Your task to perform on an android device: Clear all items from cart on amazon.com. Add razer thresher to the cart on amazon.com, then select checkout. Image 0: 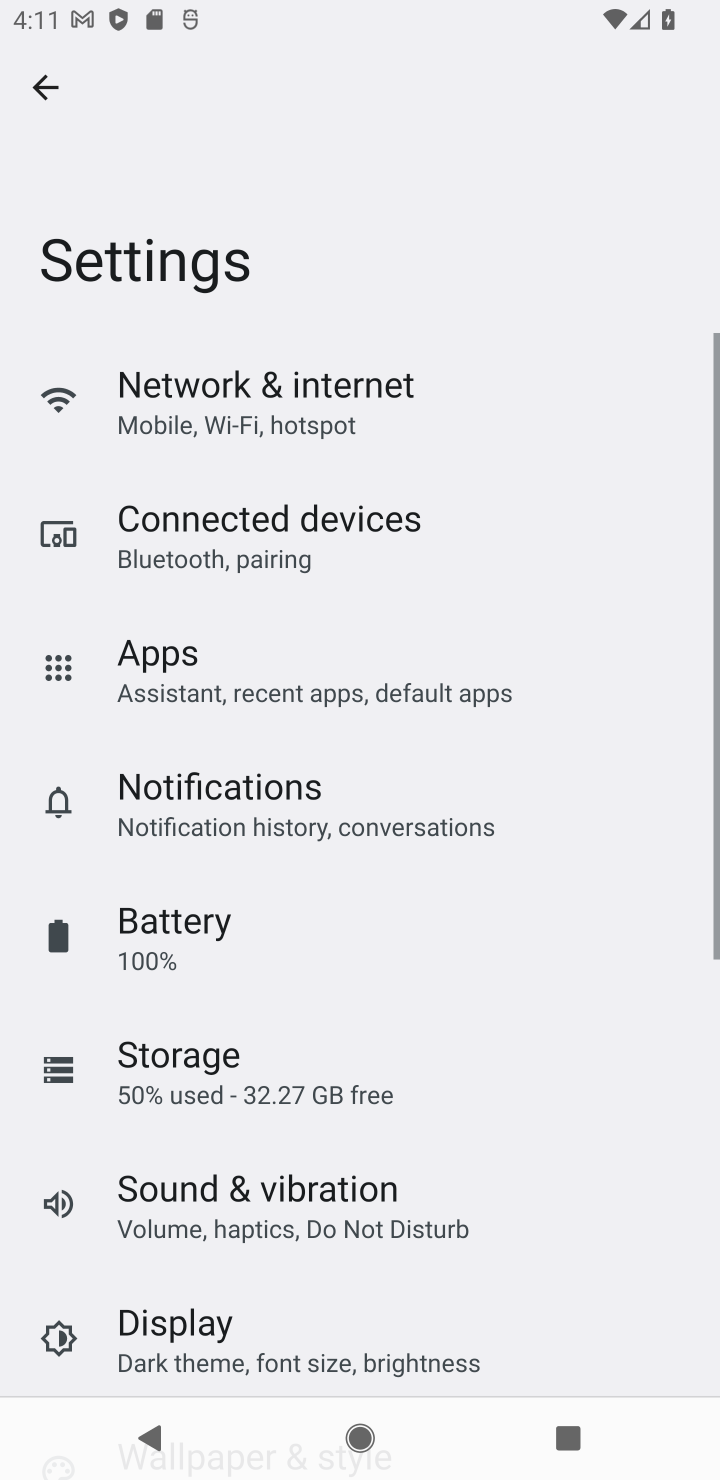
Step 0: press home button
Your task to perform on an android device: Clear all items from cart on amazon.com. Add razer thresher to the cart on amazon.com, then select checkout. Image 1: 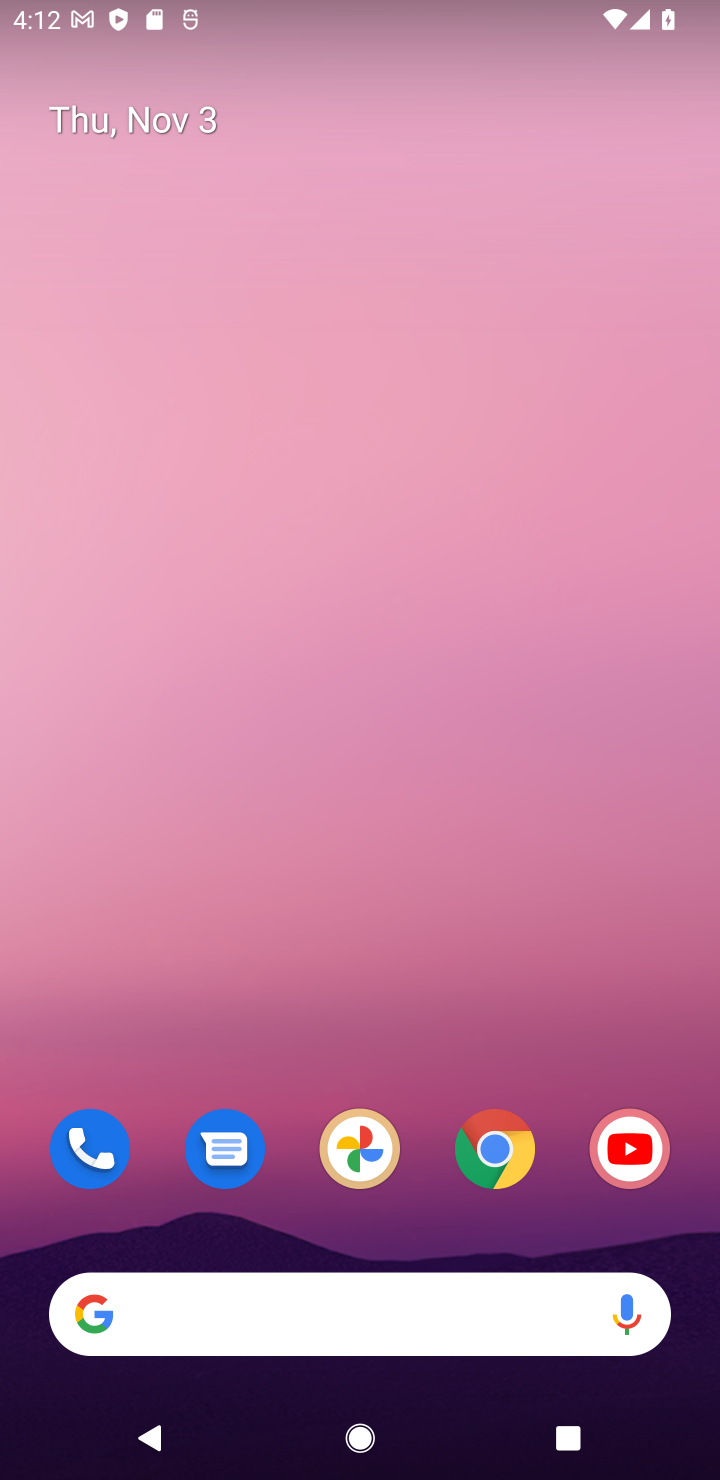
Step 1: drag from (428, 1107) to (197, 41)
Your task to perform on an android device: Clear all items from cart on amazon.com. Add razer thresher to the cart on amazon.com, then select checkout. Image 2: 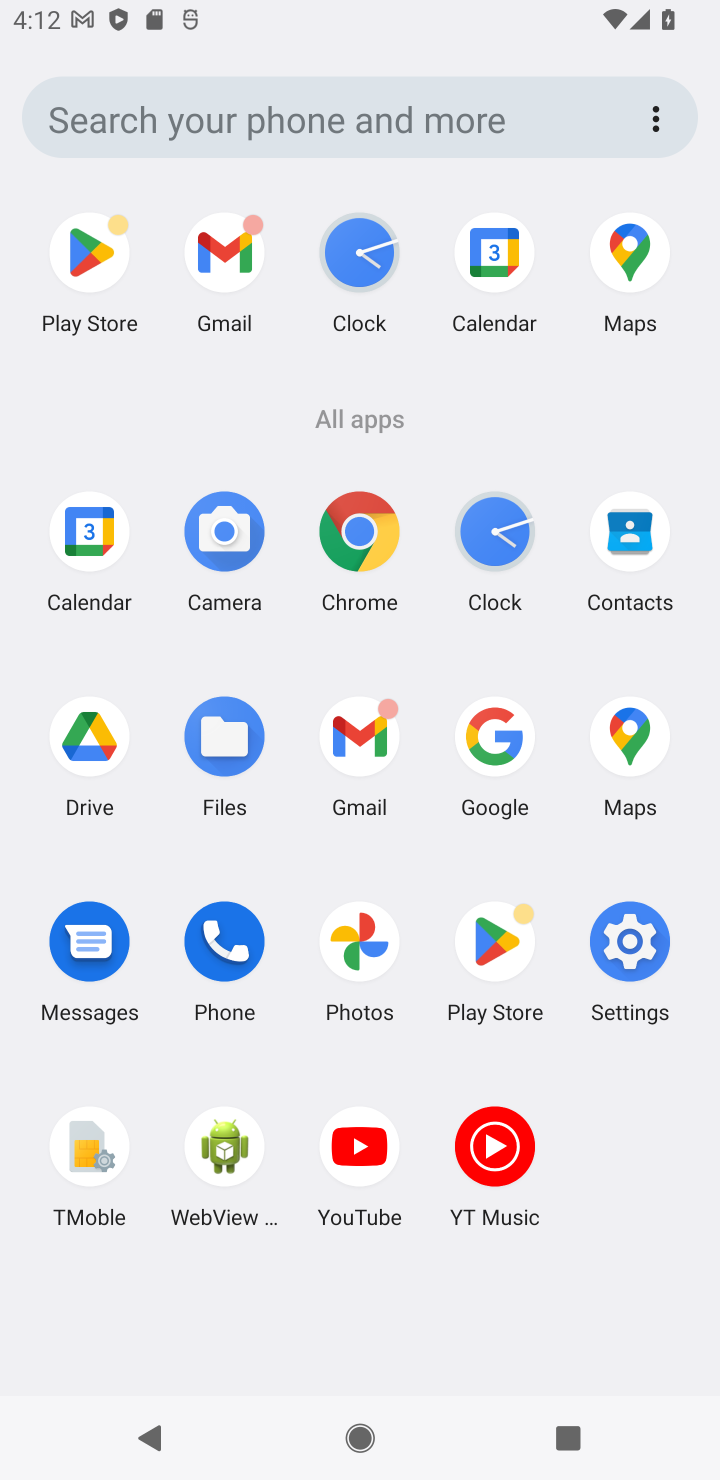
Step 2: click (352, 512)
Your task to perform on an android device: Clear all items from cart on amazon.com. Add razer thresher to the cart on amazon.com, then select checkout. Image 3: 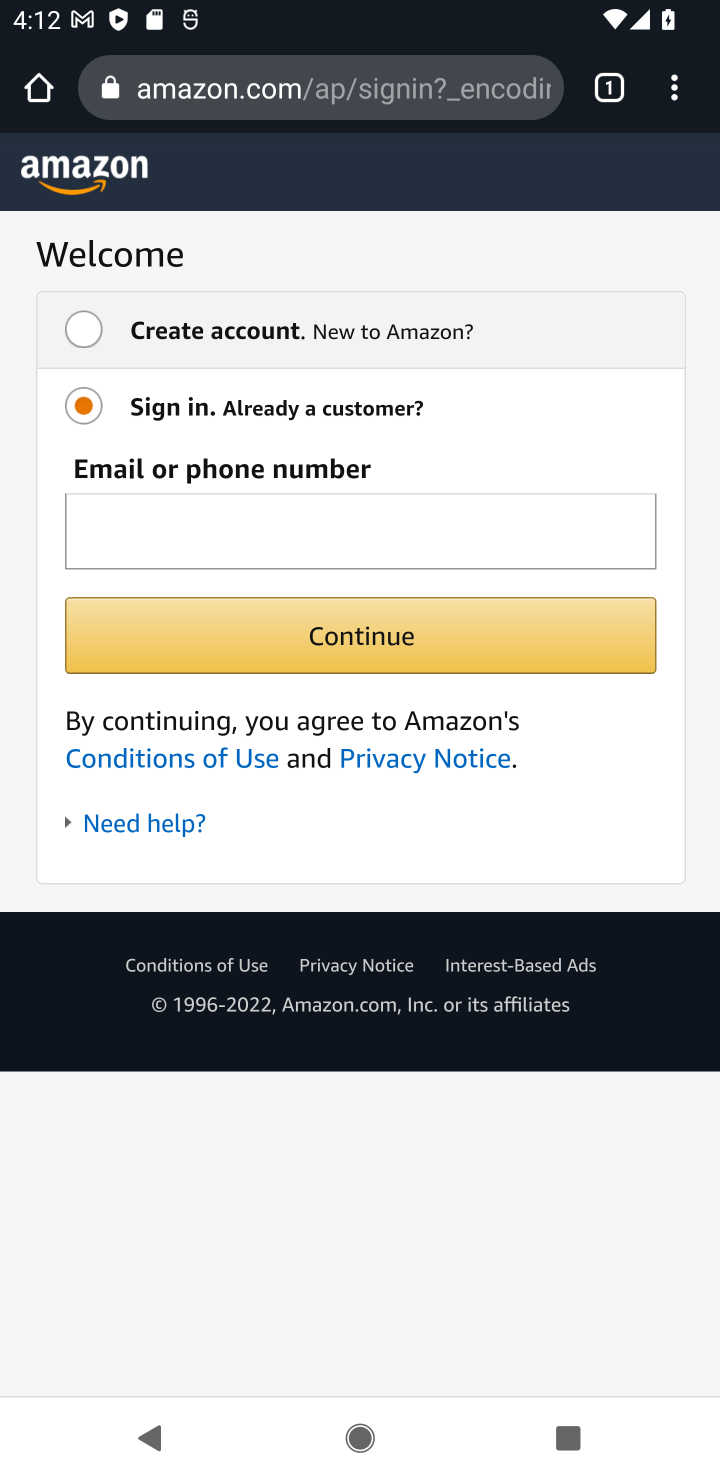
Step 3: click (210, 88)
Your task to perform on an android device: Clear all items from cart on amazon.com. Add razer thresher to the cart on amazon.com, then select checkout. Image 4: 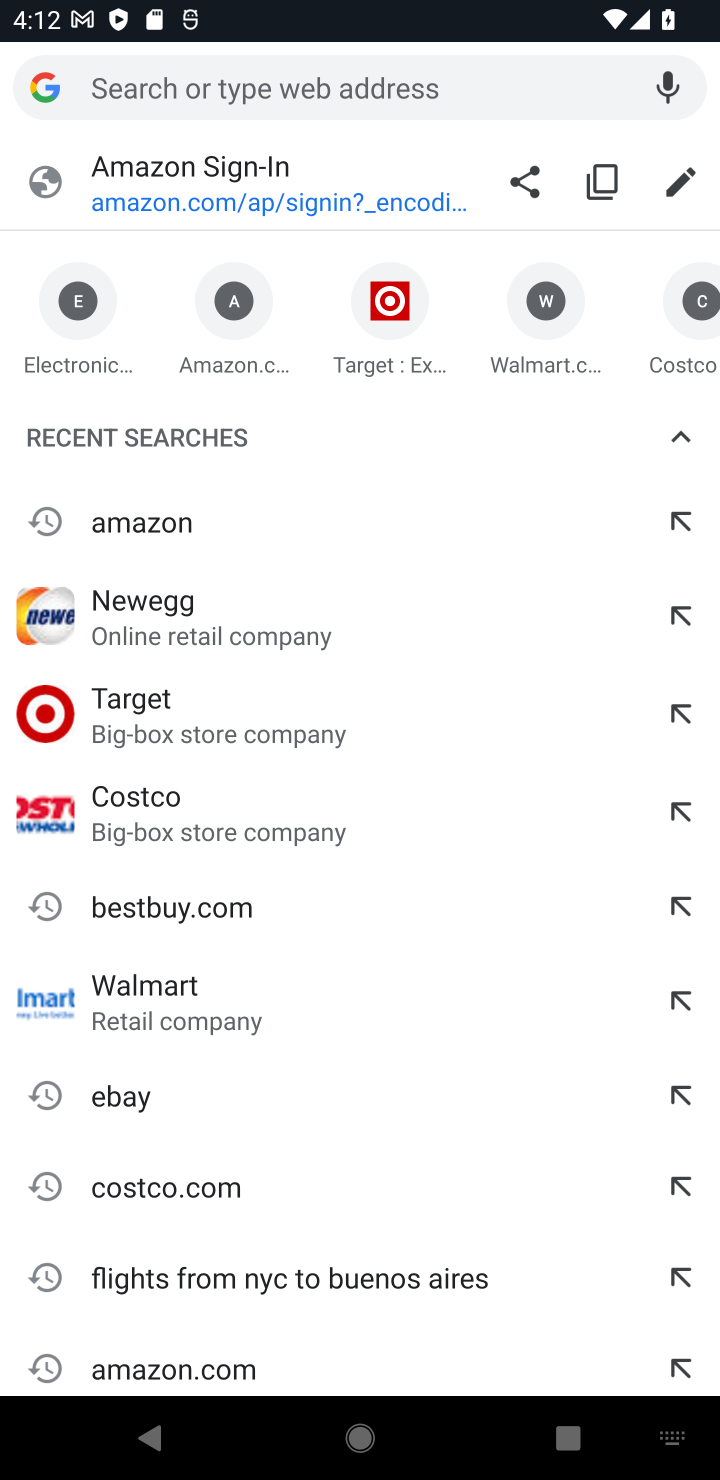
Step 4: click (165, 510)
Your task to perform on an android device: Clear all items from cart on amazon.com. Add razer thresher to the cart on amazon.com, then select checkout. Image 5: 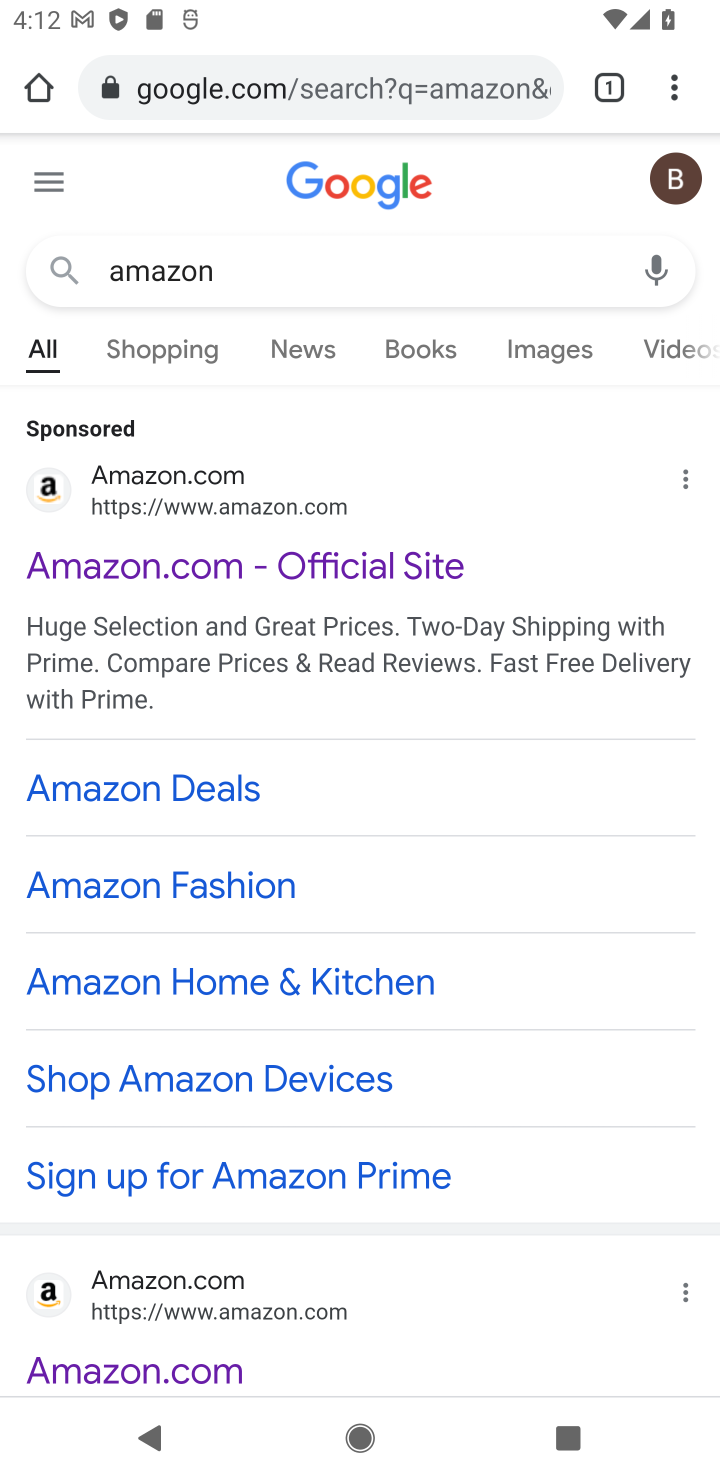
Step 5: click (169, 561)
Your task to perform on an android device: Clear all items from cart on amazon.com. Add razer thresher to the cart on amazon.com, then select checkout. Image 6: 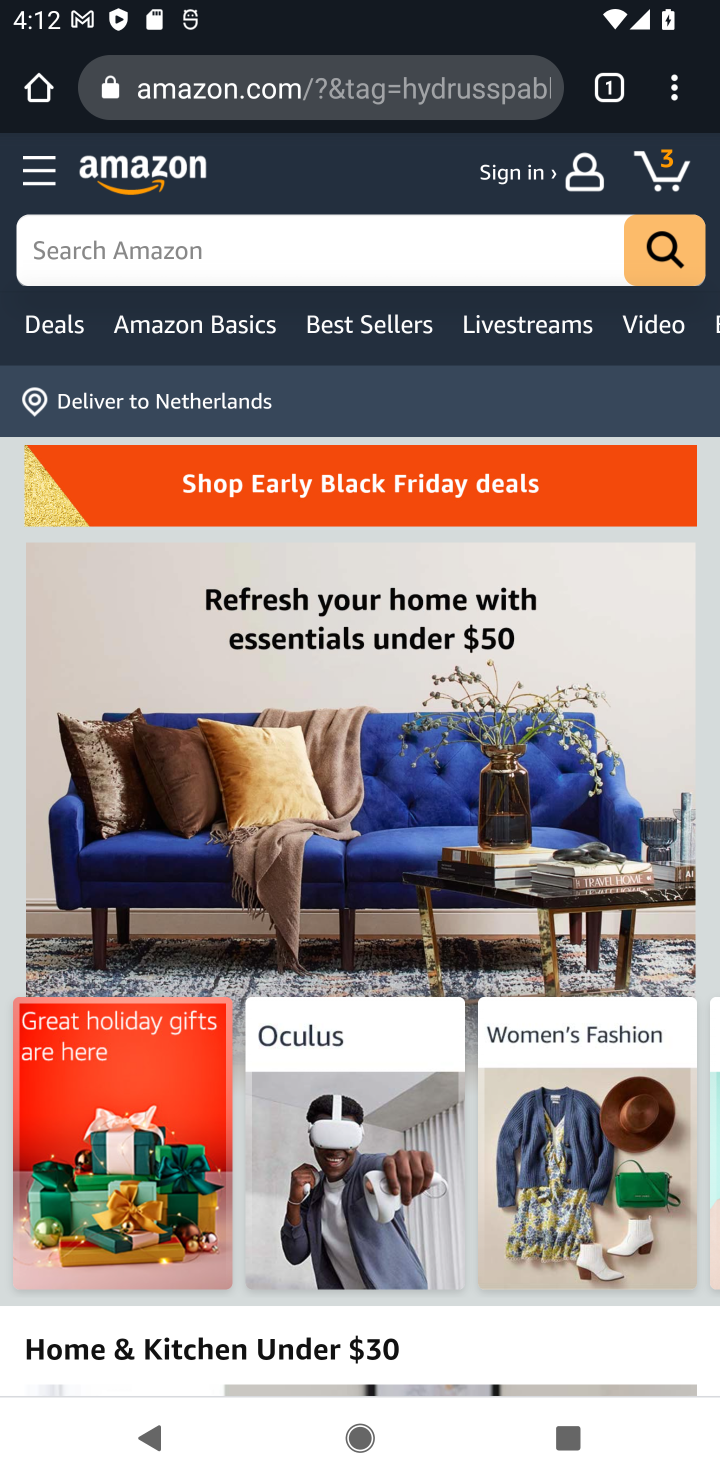
Step 6: click (246, 245)
Your task to perform on an android device: Clear all items from cart on amazon.com. Add razer thresher to the cart on amazon.com, then select checkout. Image 7: 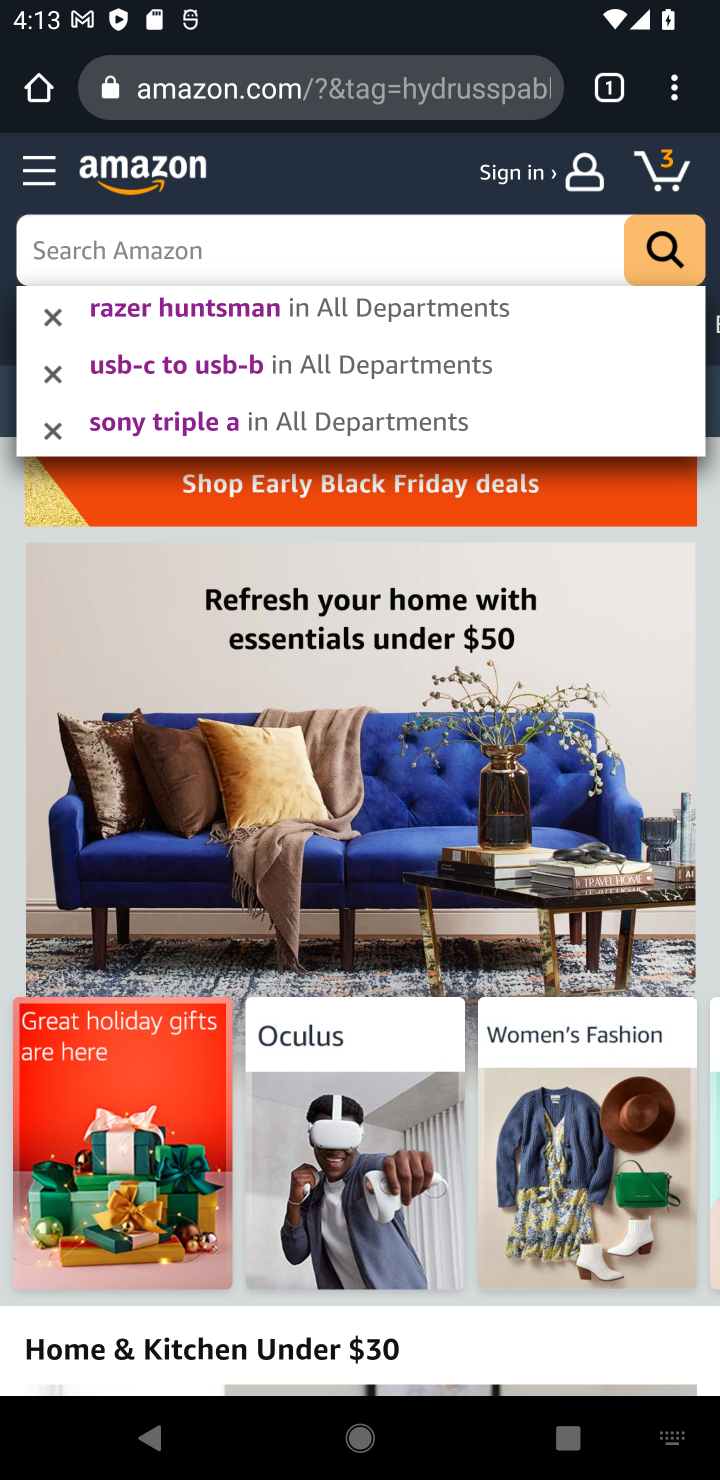
Step 7: type "razer thresher"
Your task to perform on an android device: Clear all items from cart on amazon.com. Add razer thresher to the cart on amazon.com, then select checkout. Image 8: 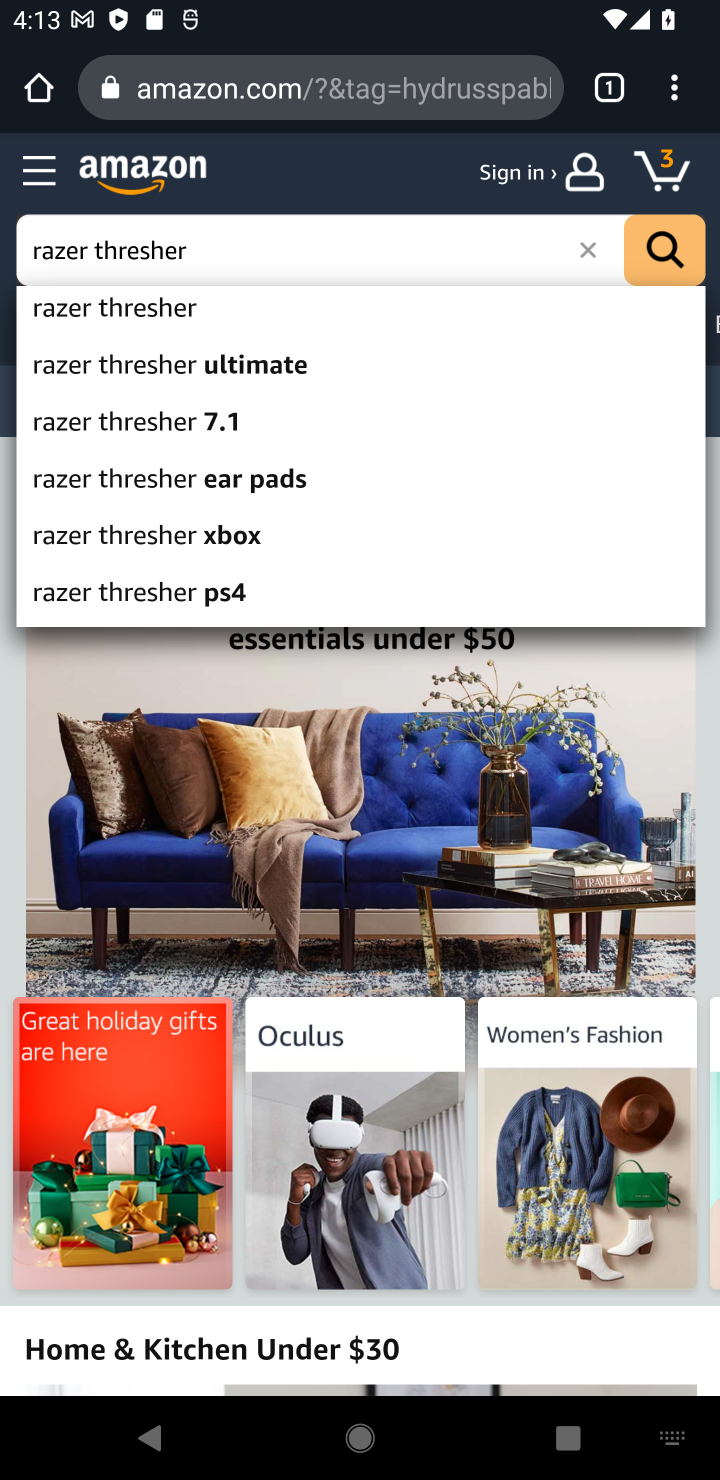
Step 8: click (164, 306)
Your task to perform on an android device: Clear all items from cart on amazon.com. Add razer thresher to the cart on amazon.com, then select checkout. Image 9: 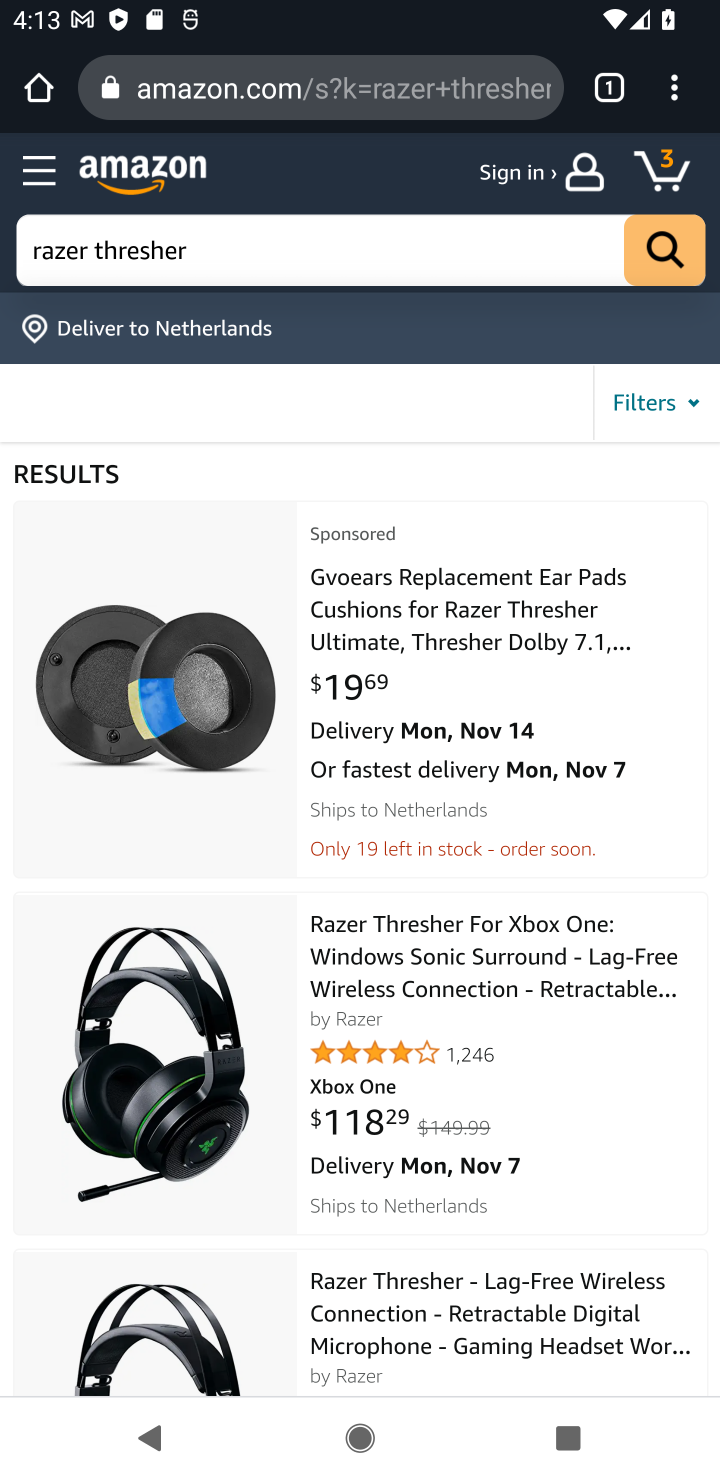
Step 9: click (406, 981)
Your task to perform on an android device: Clear all items from cart on amazon.com. Add razer thresher to the cart on amazon.com, then select checkout. Image 10: 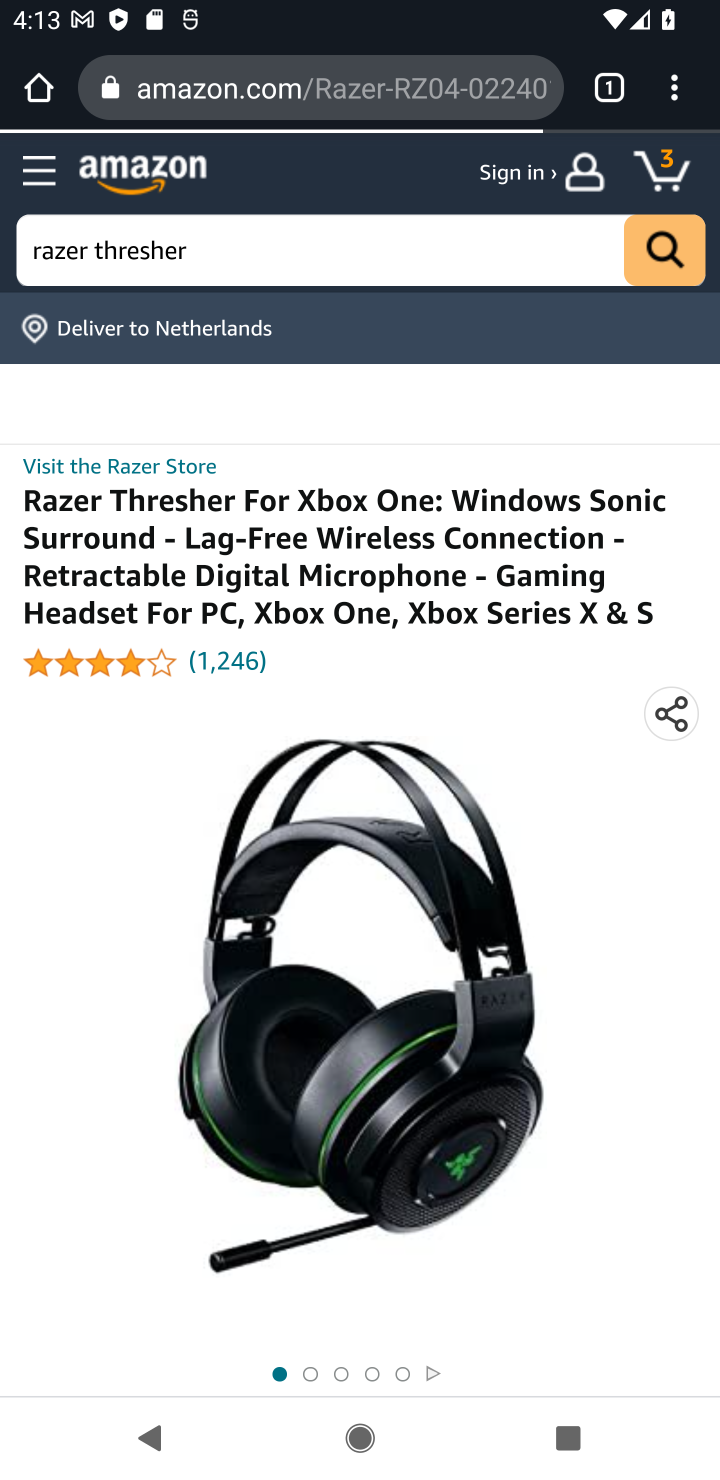
Step 10: drag from (517, 1187) to (482, 435)
Your task to perform on an android device: Clear all items from cart on amazon.com. Add razer thresher to the cart on amazon.com, then select checkout. Image 11: 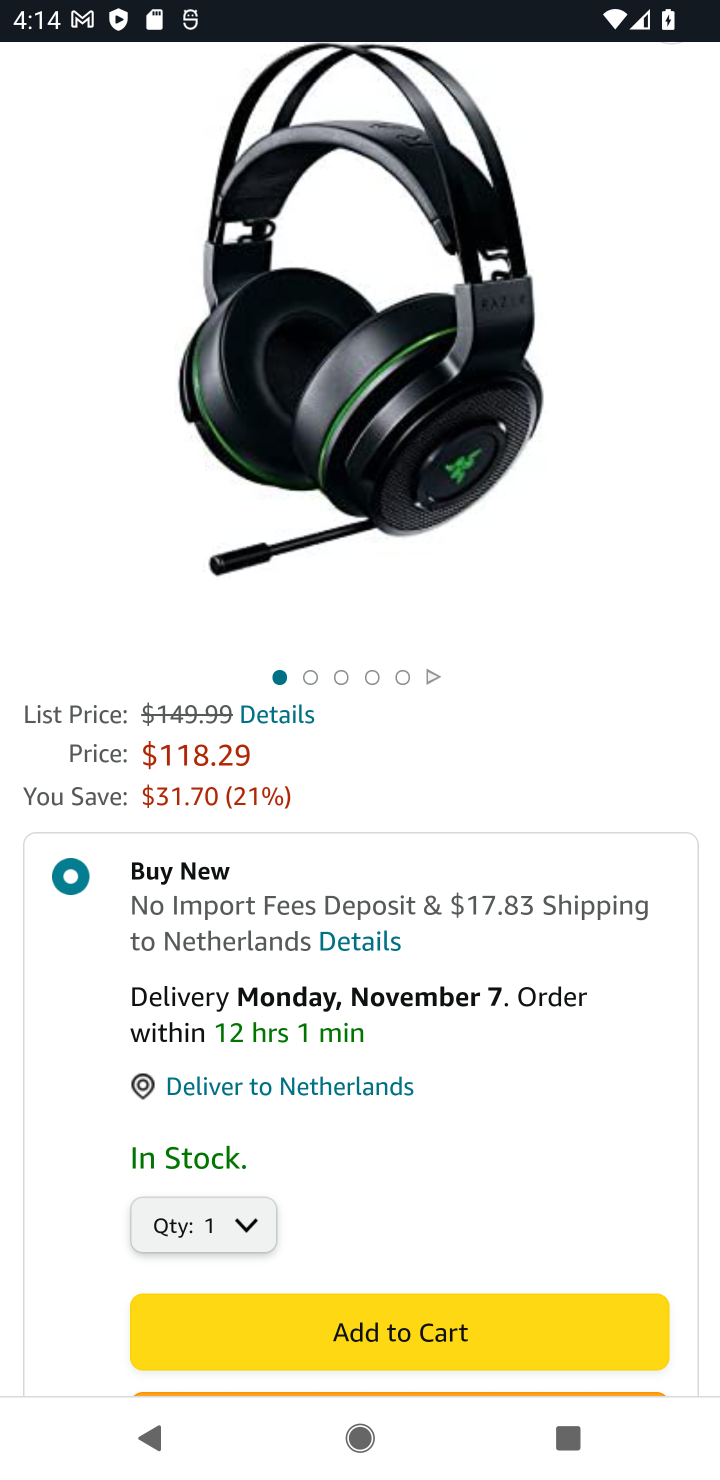
Step 11: click (399, 1335)
Your task to perform on an android device: Clear all items from cart on amazon.com. Add razer thresher to the cart on amazon.com, then select checkout. Image 12: 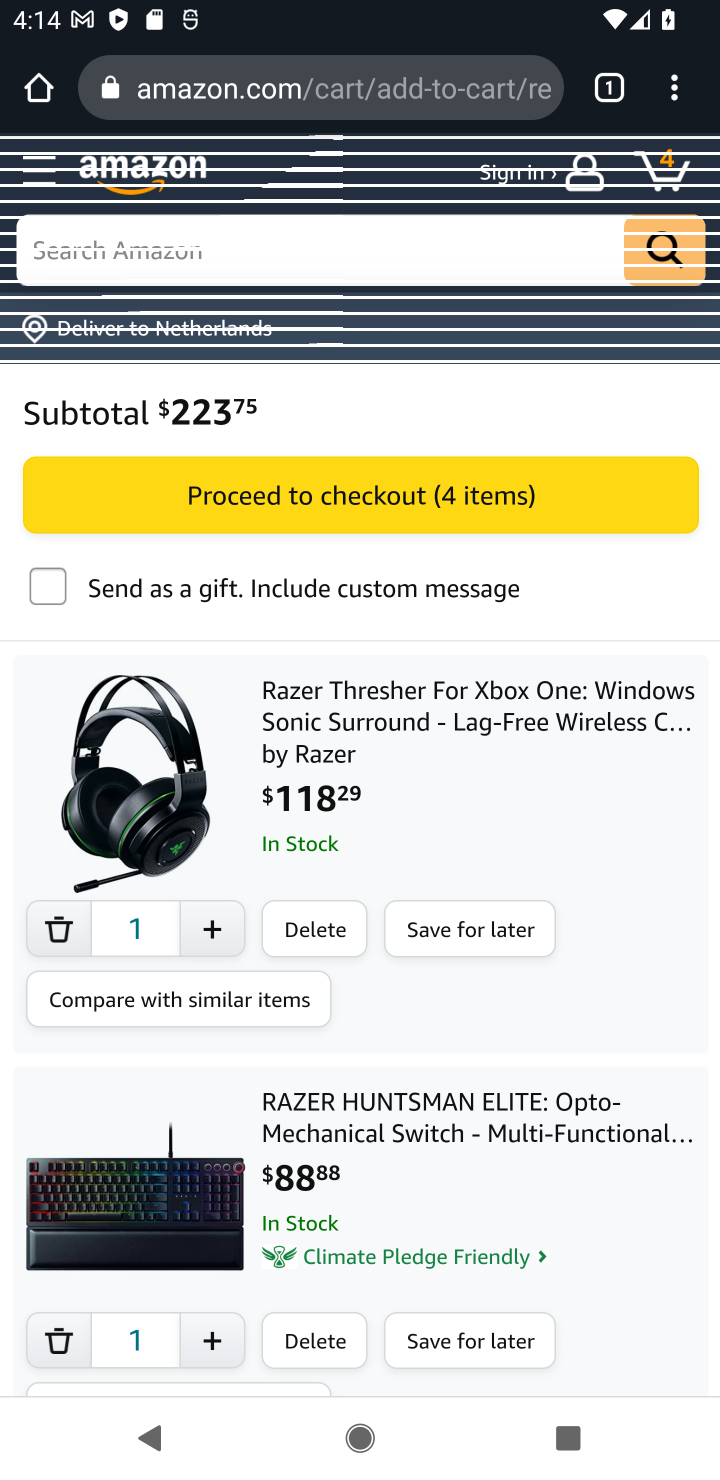
Step 12: click (663, 163)
Your task to perform on an android device: Clear all items from cart on amazon.com. Add razer thresher to the cart on amazon.com, then select checkout. Image 13: 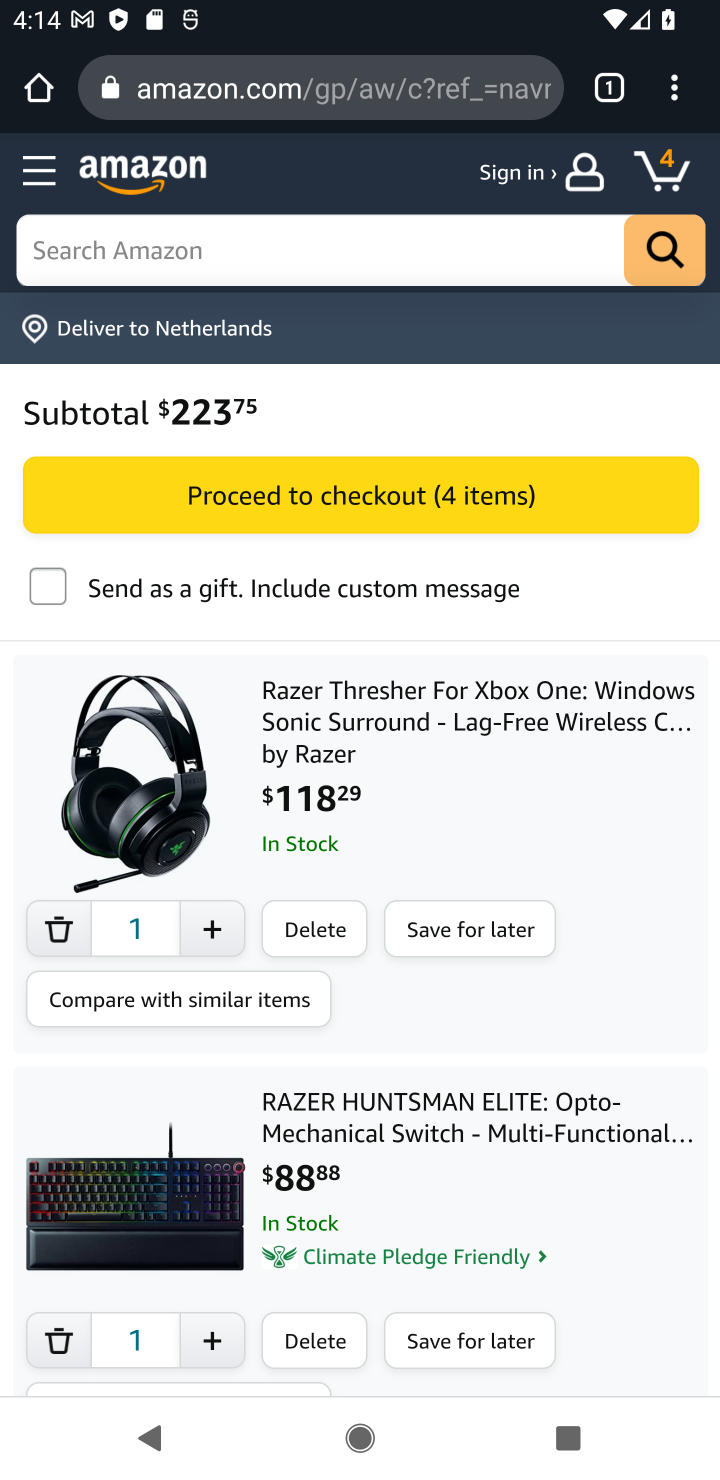
Step 13: click (309, 500)
Your task to perform on an android device: Clear all items from cart on amazon.com. Add razer thresher to the cart on amazon.com, then select checkout. Image 14: 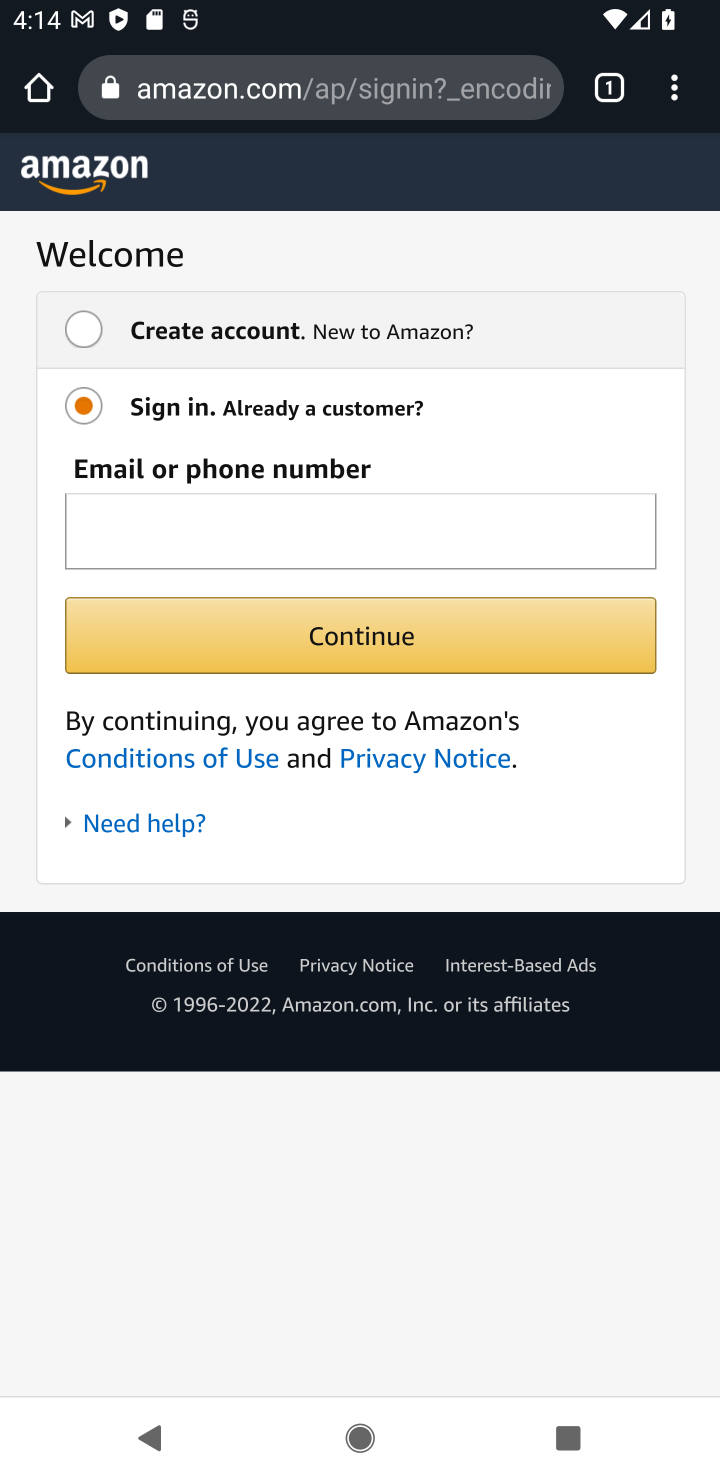
Step 14: task complete